Your task to perform on an android device: move an email to a new category in the gmail app Image 0: 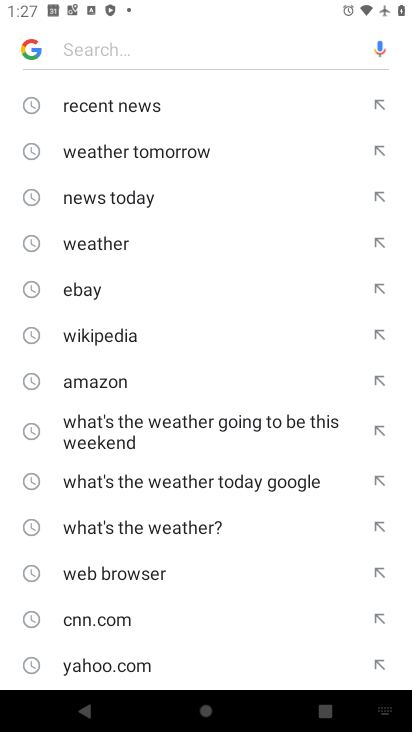
Step 0: press home button
Your task to perform on an android device: move an email to a new category in the gmail app Image 1: 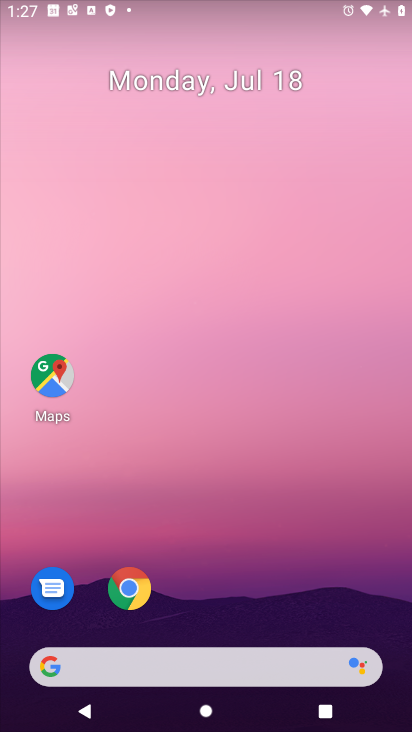
Step 1: drag from (240, 630) to (389, 68)
Your task to perform on an android device: move an email to a new category in the gmail app Image 2: 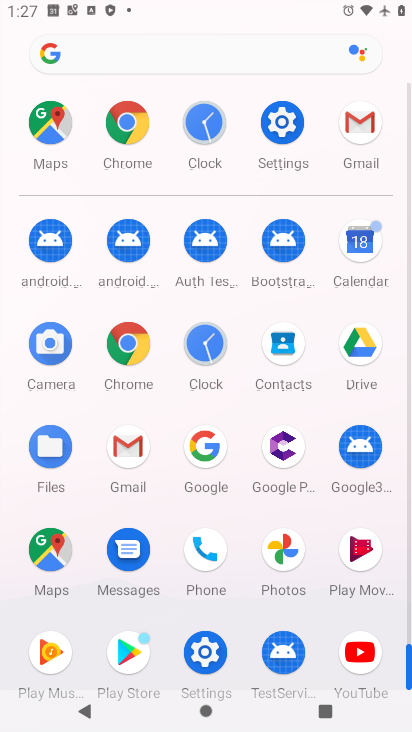
Step 2: click (142, 461)
Your task to perform on an android device: move an email to a new category in the gmail app Image 3: 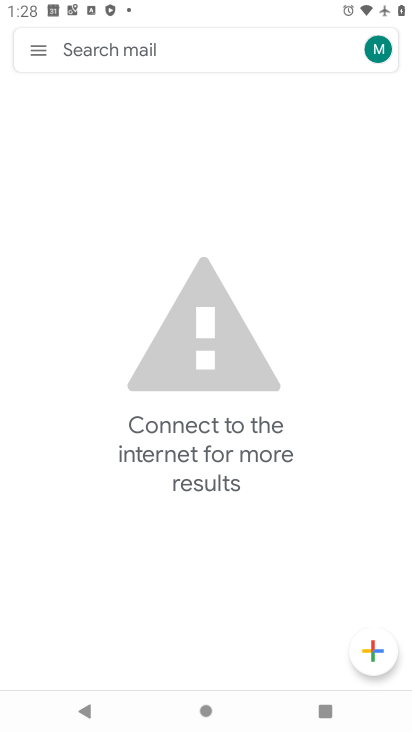
Step 3: click (35, 49)
Your task to perform on an android device: move an email to a new category in the gmail app Image 4: 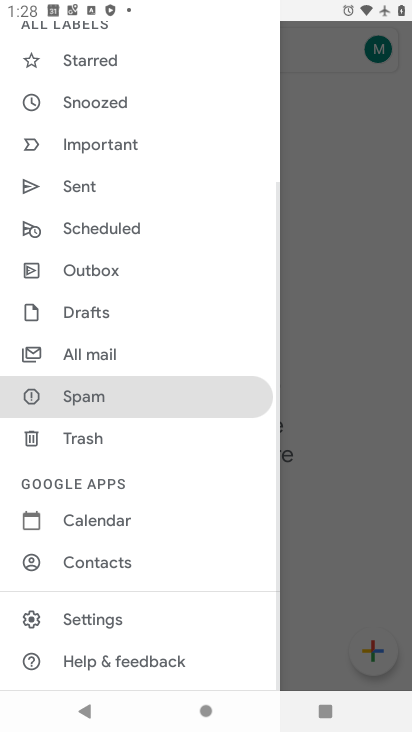
Step 4: click (130, 360)
Your task to perform on an android device: move an email to a new category in the gmail app Image 5: 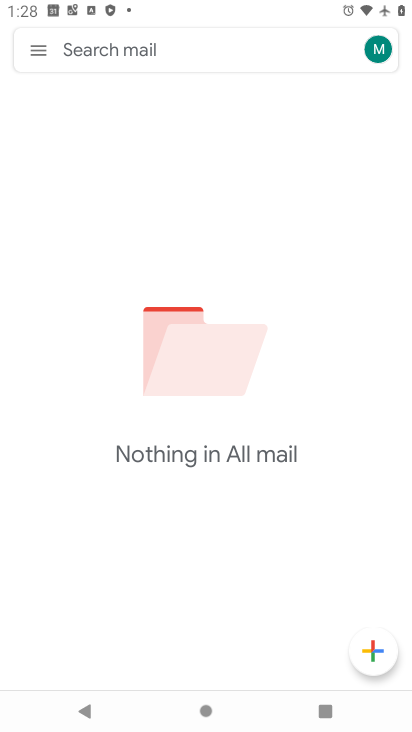
Step 5: task complete